Your task to perform on an android device: visit the assistant section in the google photos Image 0: 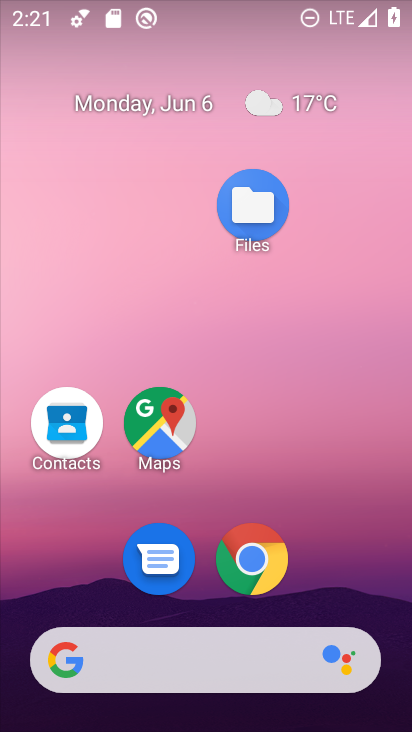
Step 0: drag from (221, 693) to (267, 119)
Your task to perform on an android device: visit the assistant section in the google photos Image 1: 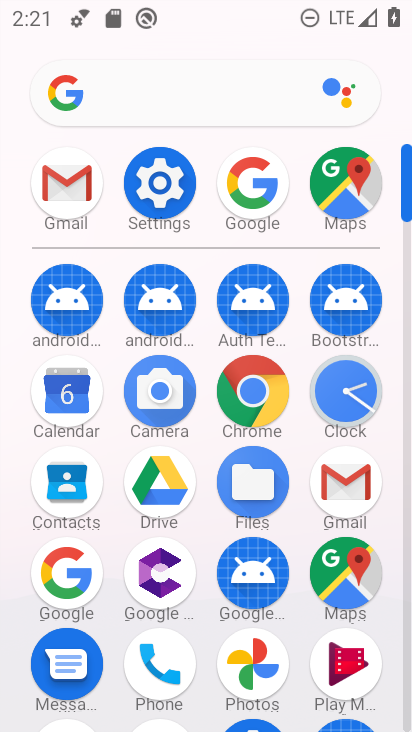
Step 1: click (264, 669)
Your task to perform on an android device: visit the assistant section in the google photos Image 2: 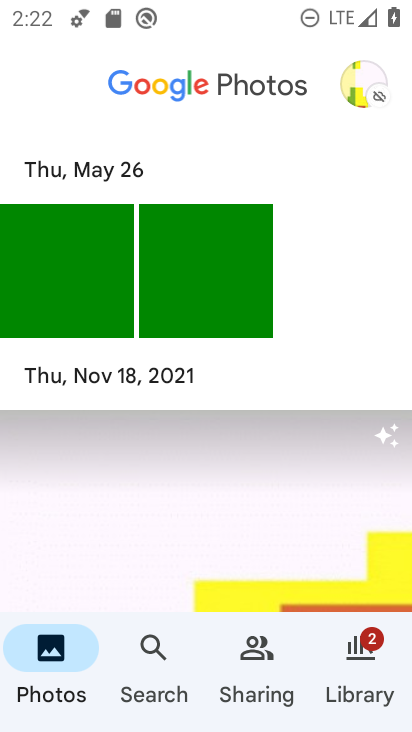
Step 2: task complete